Your task to perform on an android device: turn vacation reply on in the gmail app Image 0: 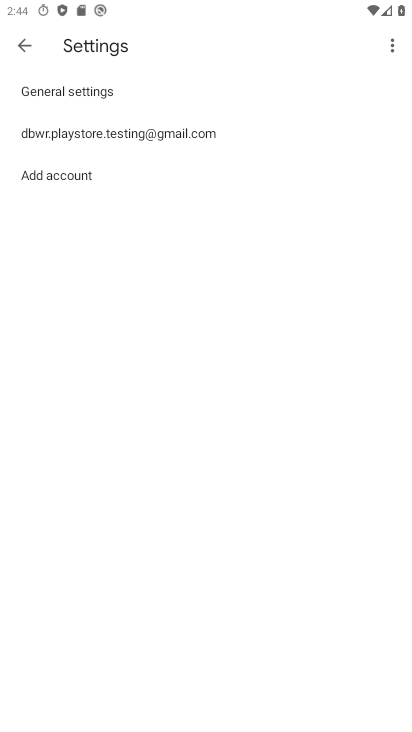
Step 0: press home button
Your task to perform on an android device: turn vacation reply on in the gmail app Image 1: 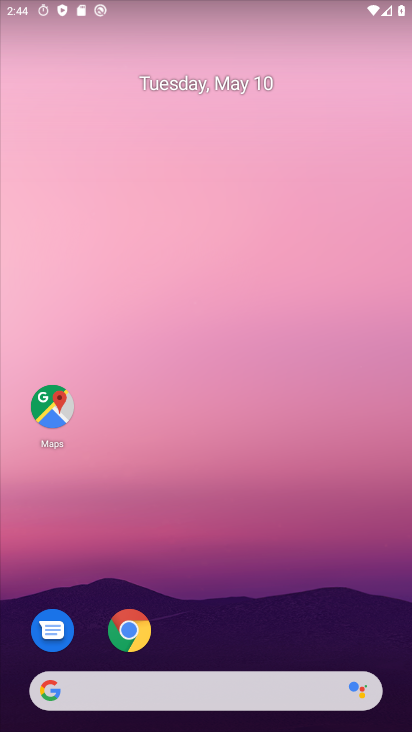
Step 1: drag from (199, 624) to (271, 105)
Your task to perform on an android device: turn vacation reply on in the gmail app Image 2: 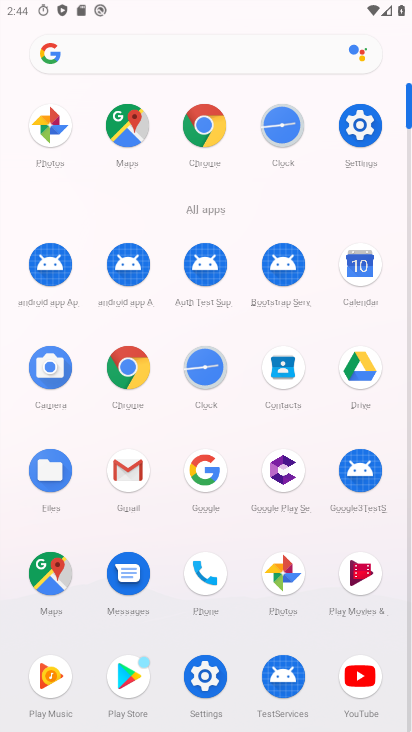
Step 2: click (132, 474)
Your task to perform on an android device: turn vacation reply on in the gmail app Image 3: 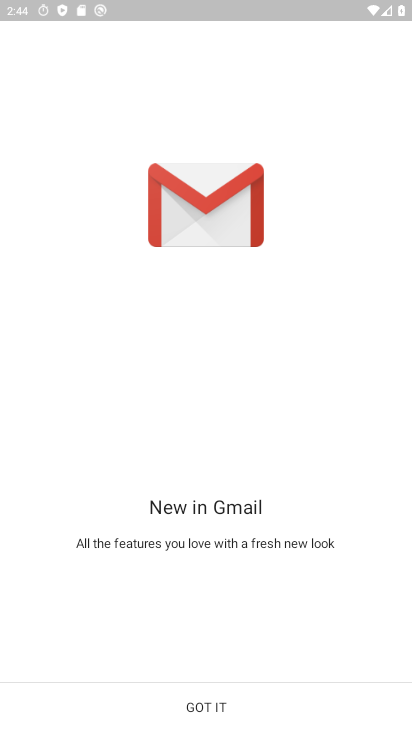
Step 3: click (221, 708)
Your task to perform on an android device: turn vacation reply on in the gmail app Image 4: 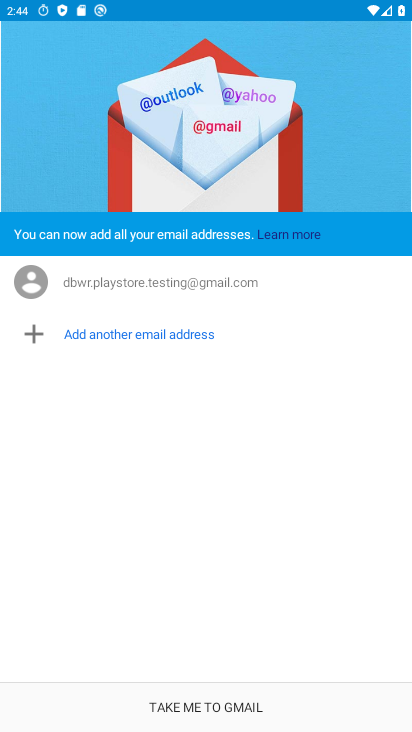
Step 4: click (196, 699)
Your task to perform on an android device: turn vacation reply on in the gmail app Image 5: 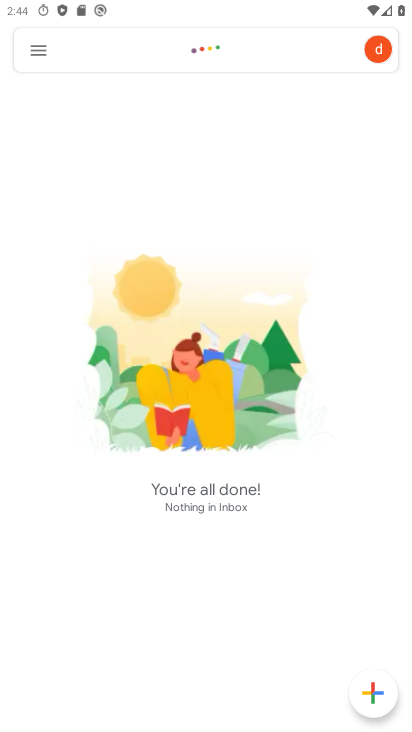
Step 5: click (20, 42)
Your task to perform on an android device: turn vacation reply on in the gmail app Image 6: 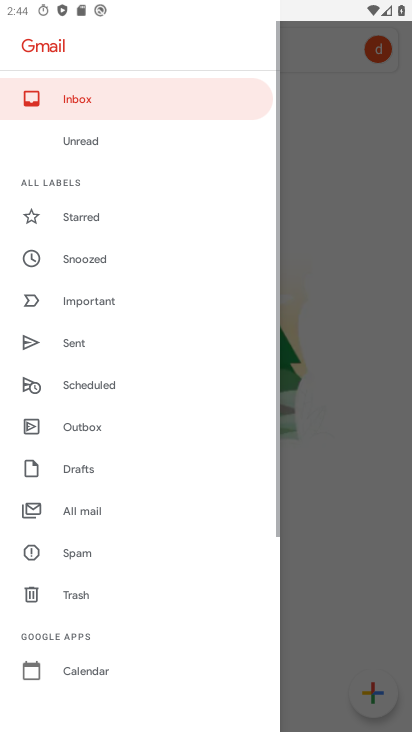
Step 6: drag from (72, 549) to (87, 225)
Your task to perform on an android device: turn vacation reply on in the gmail app Image 7: 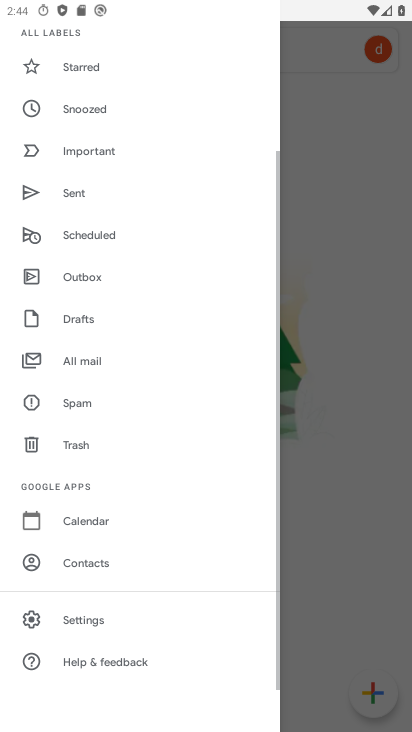
Step 7: click (73, 612)
Your task to perform on an android device: turn vacation reply on in the gmail app Image 8: 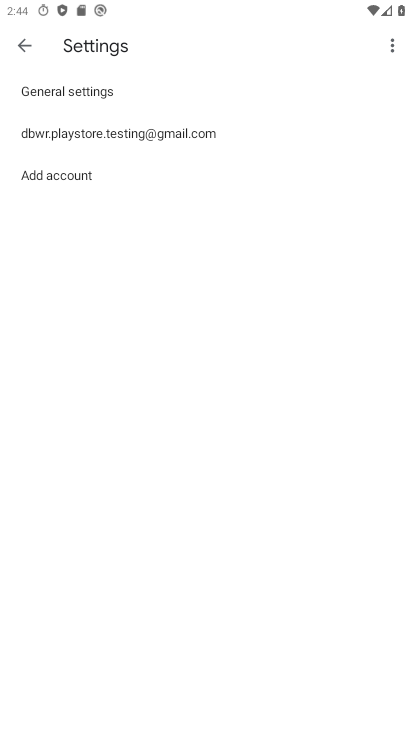
Step 8: click (98, 129)
Your task to perform on an android device: turn vacation reply on in the gmail app Image 9: 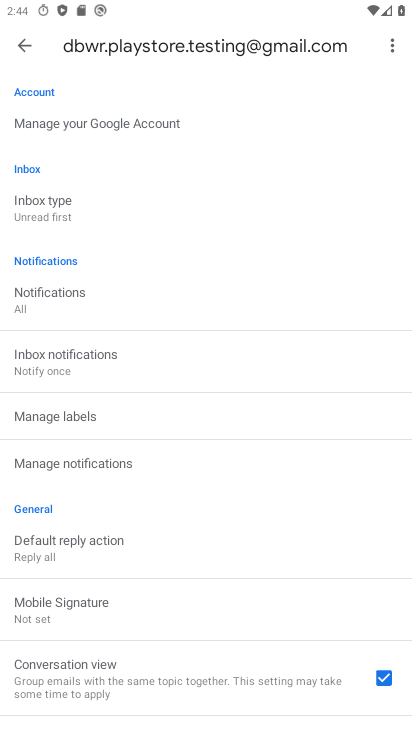
Step 9: drag from (131, 636) to (120, 401)
Your task to perform on an android device: turn vacation reply on in the gmail app Image 10: 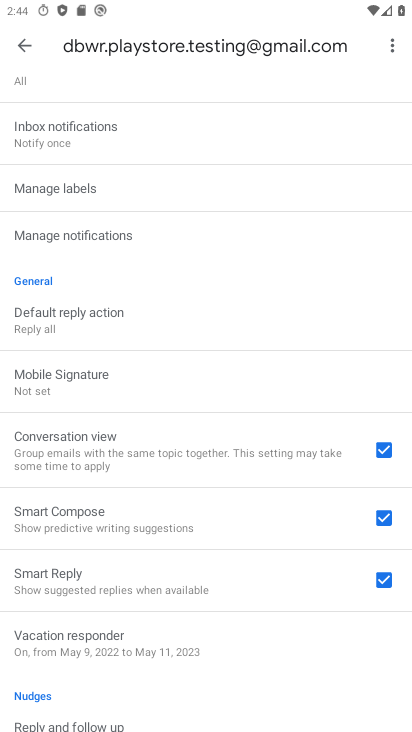
Step 10: click (110, 635)
Your task to perform on an android device: turn vacation reply on in the gmail app Image 11: 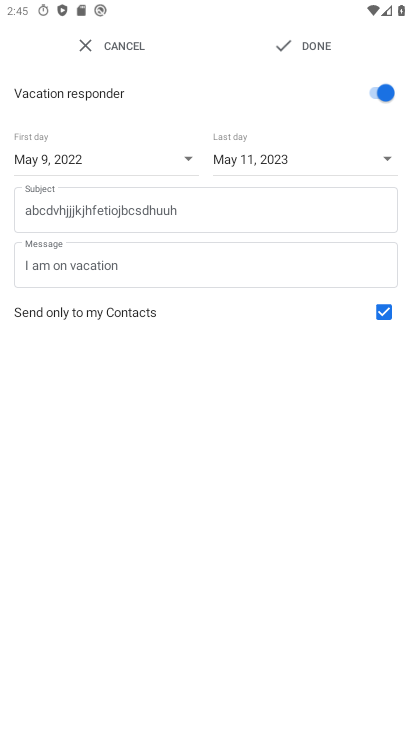
Step 11: task complete